Your task to perform on an android device: toggle notifications settings in the gmail app Image 0: 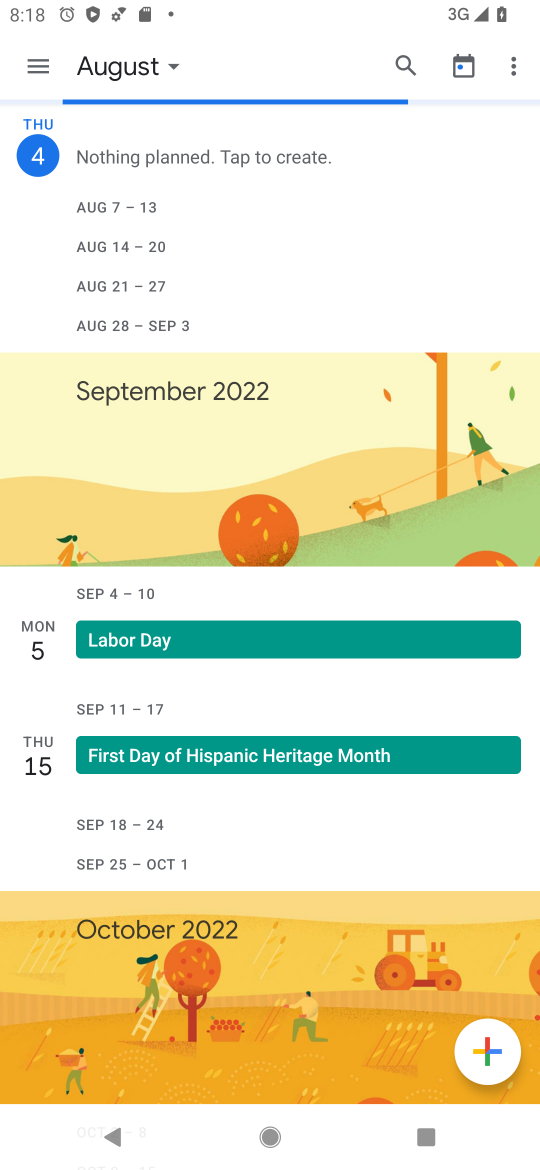
Step 0: press back button
Your task to perform on an android device: toggle notifications settings in the gmail app Image 1: 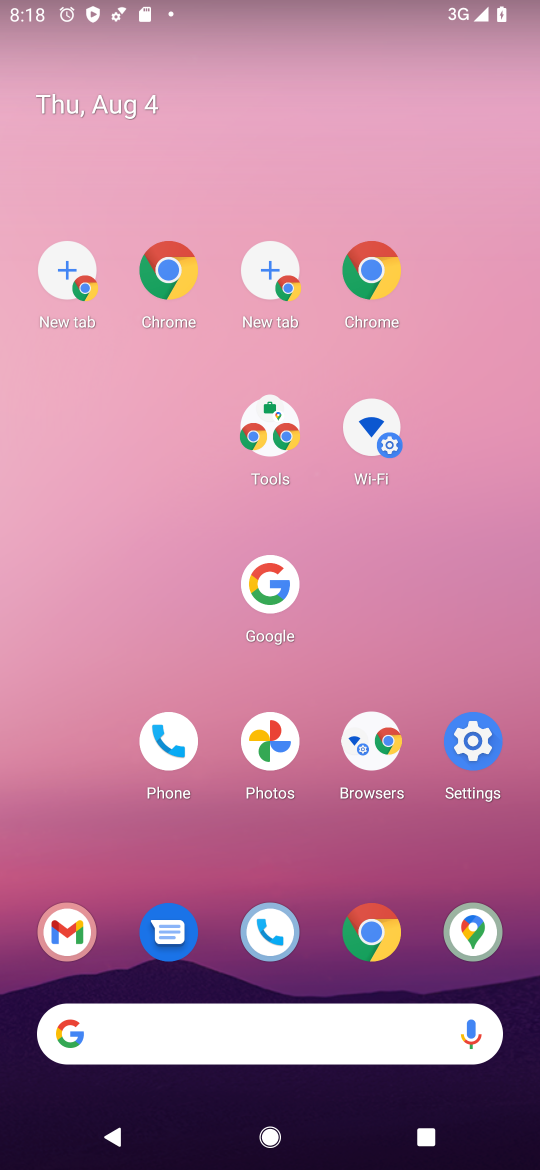
Step 1: press home button
Your task to perform on an android device: toggle notifications settings in the gmail app Image 2: 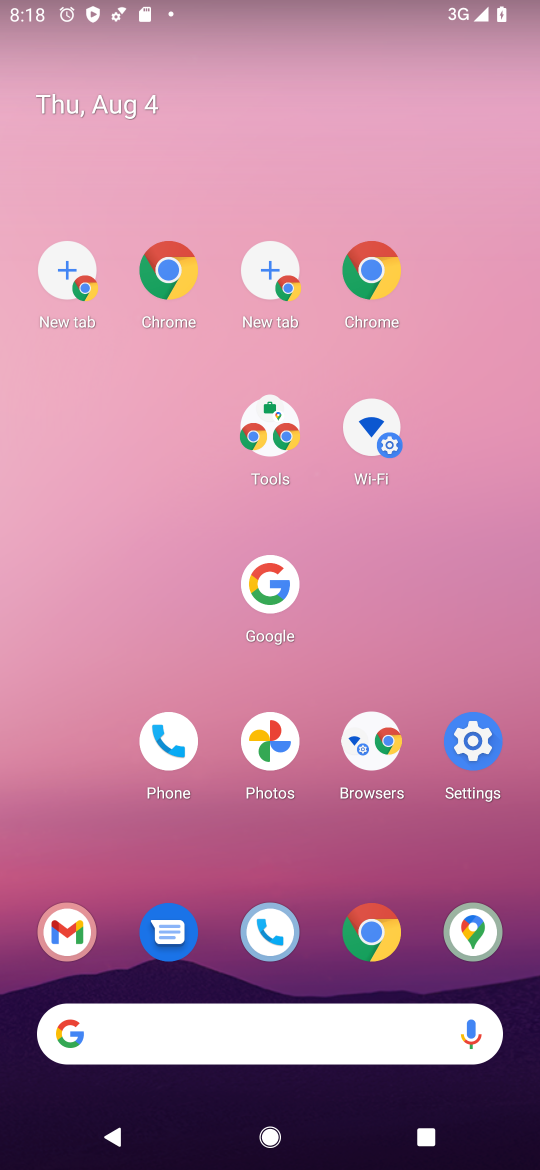
Step 2: drag from (149, 409) to (241, 221)
Your task to perform on an android device: toggle notifications settings in the gmail app Image 3: 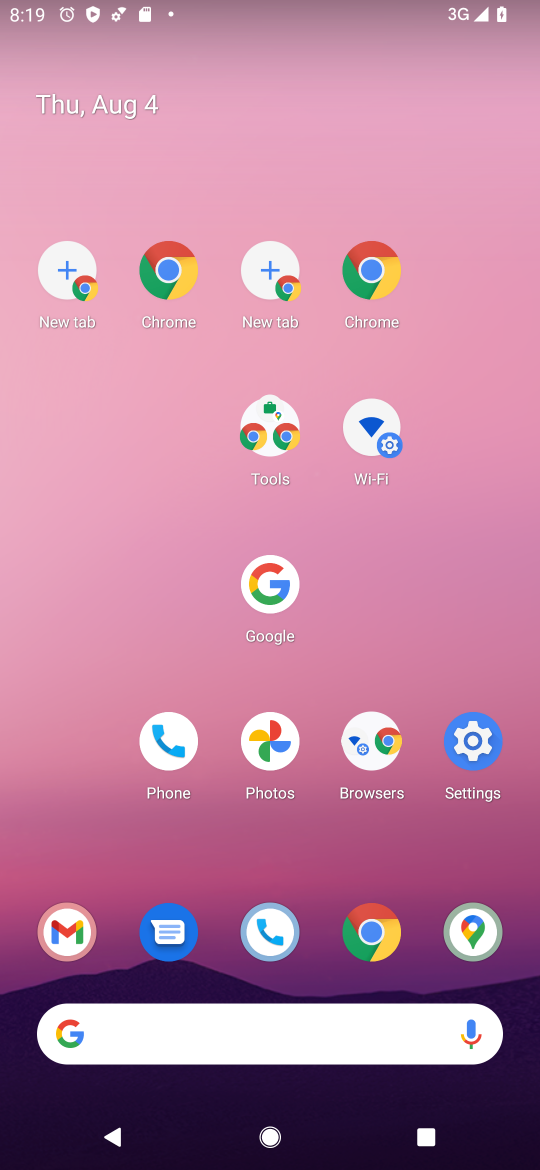
Step 3: click (71, 918)
Your task to perform on an android device: toggle notifications settings in the gmail app Image 4: 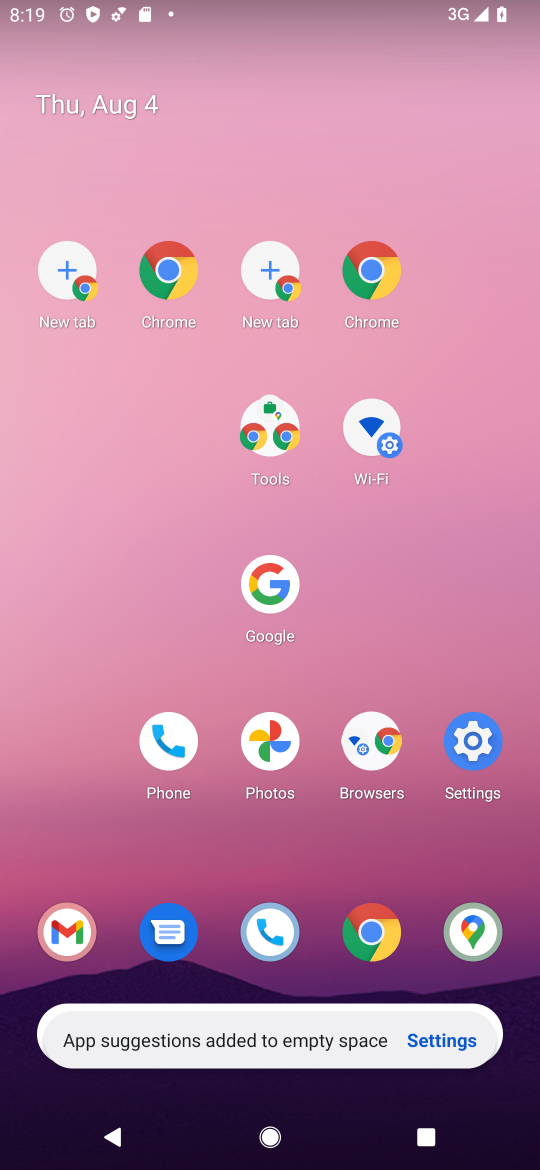
Step 4: click (83, 921)
Your task to perform on an android device: toggle notifications settings in the gmail app Image 5: 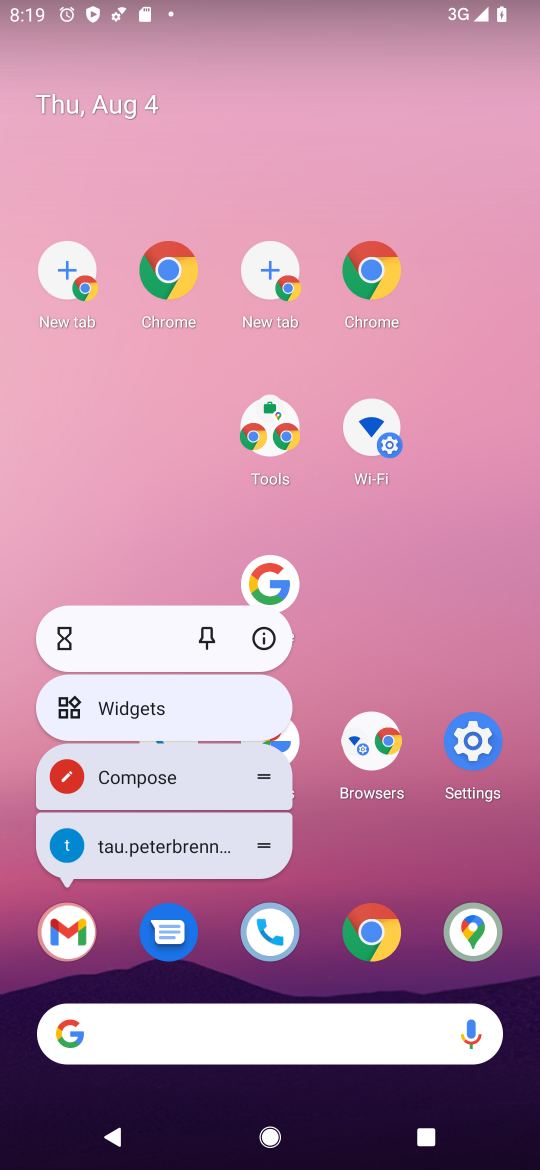
Step 5: click (84, 921)
Your task to perform on an android device: toggle notifications settings in the gmail app Image 6: 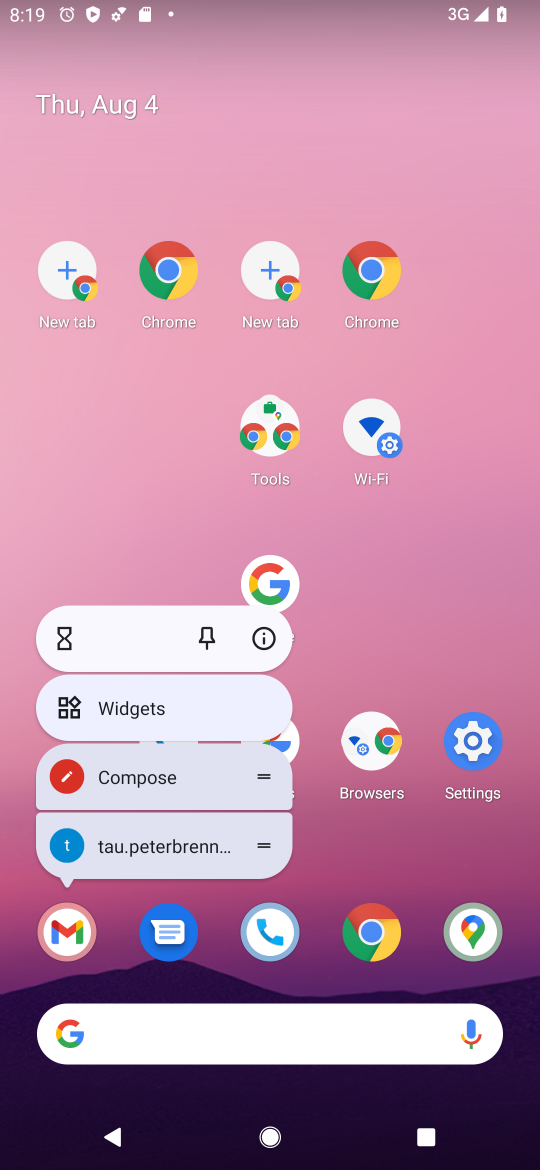
Step 6: click (44, 939)
Your task to perform on an android device: toggle notifications settings in the gmail app Image 7: 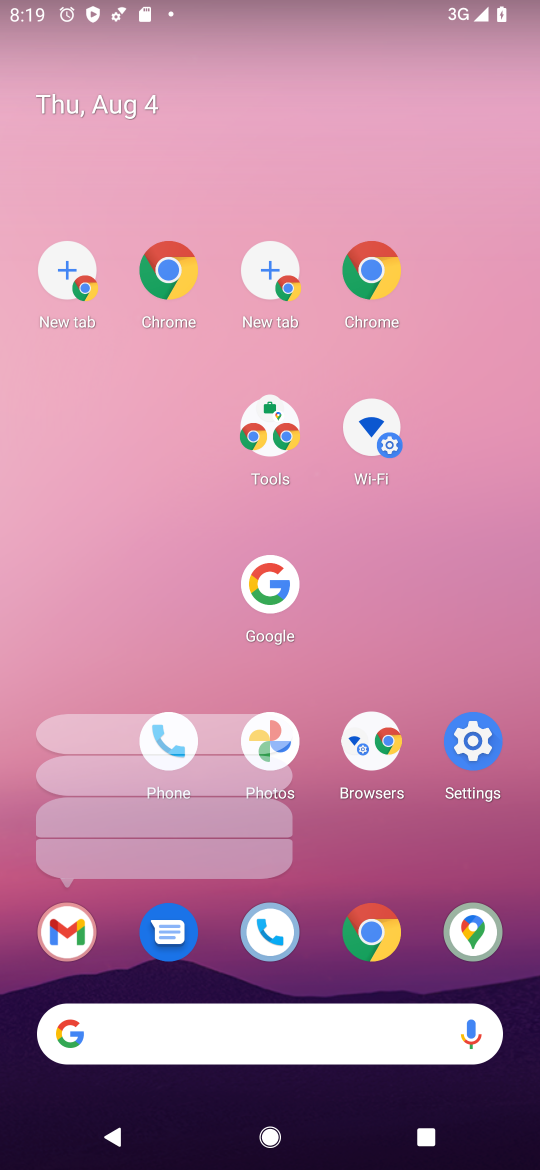
Step 7: click (44, 939)
Your task to perform on an android device: toggle notifications settings in the gmail app Image 8: 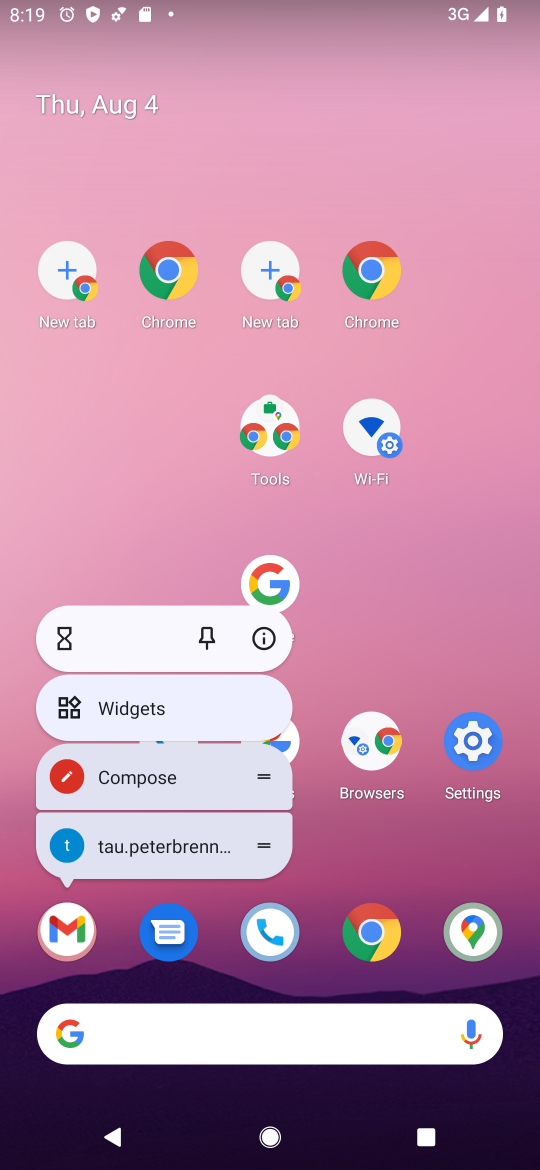
Step 8: click (44, 936)
Your task to perform on an android device: toggle notifications settings in the gmail app Image 9: 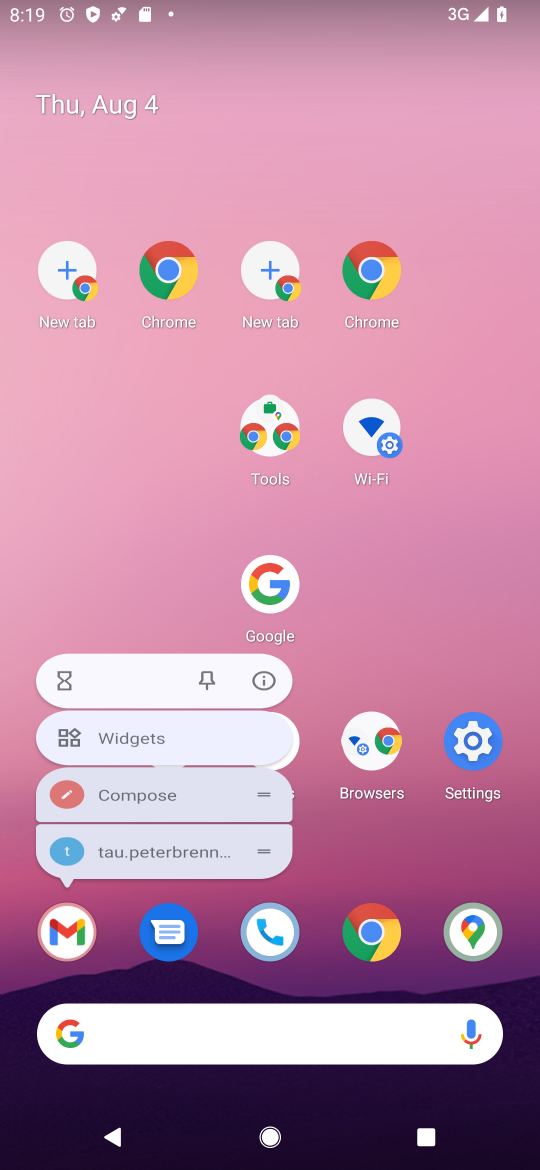
Step 9: click (34, 935)
Your task to perform on an android device: toggle notifications settings in the gmail app Image 10: 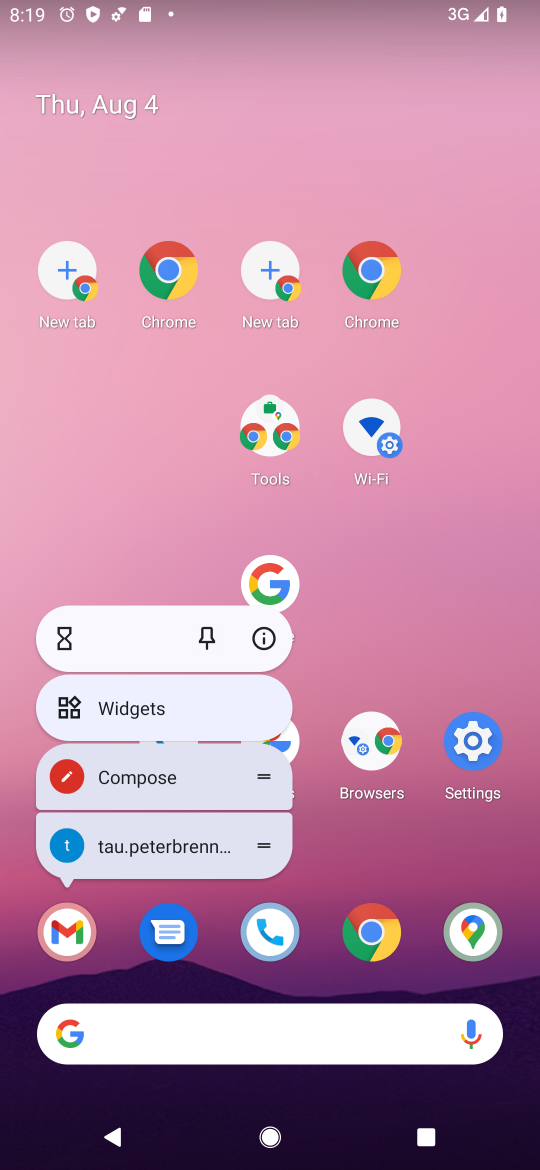
Step 10: click (379, 614)
Your task to perform on an android device: toggle notifications settings in the gmail app Image 11: 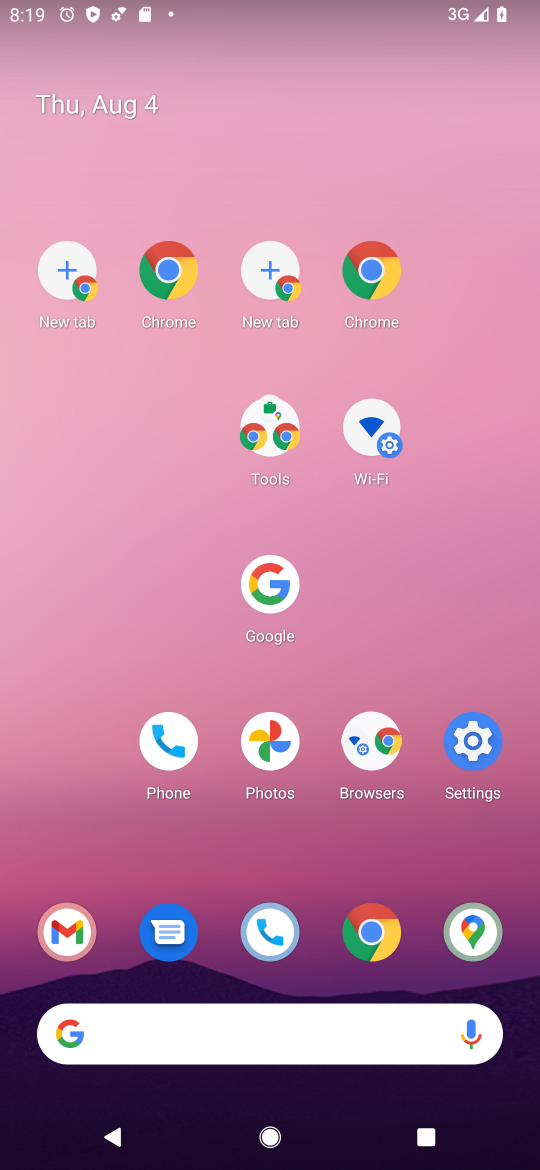
Step 11: click (267, 583)
Your task to perform on an android device: toggle notifications settings in the gmail app Image 12: 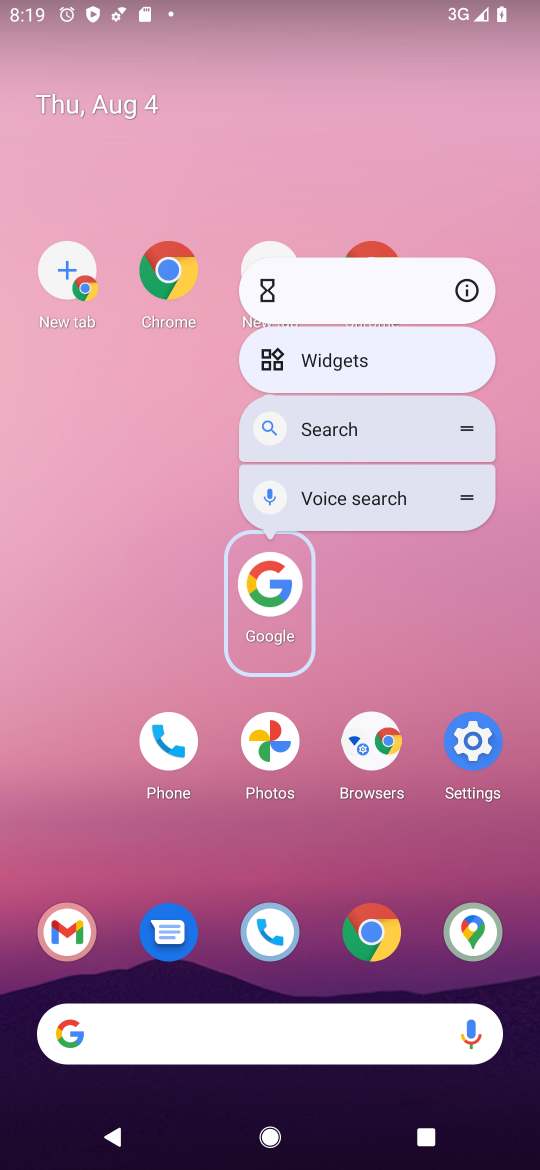
Step 12: drag from (293, 820) to (219, 91)
Your task to perform on an android device: toggle notifications settings in the gmail app Image 13: 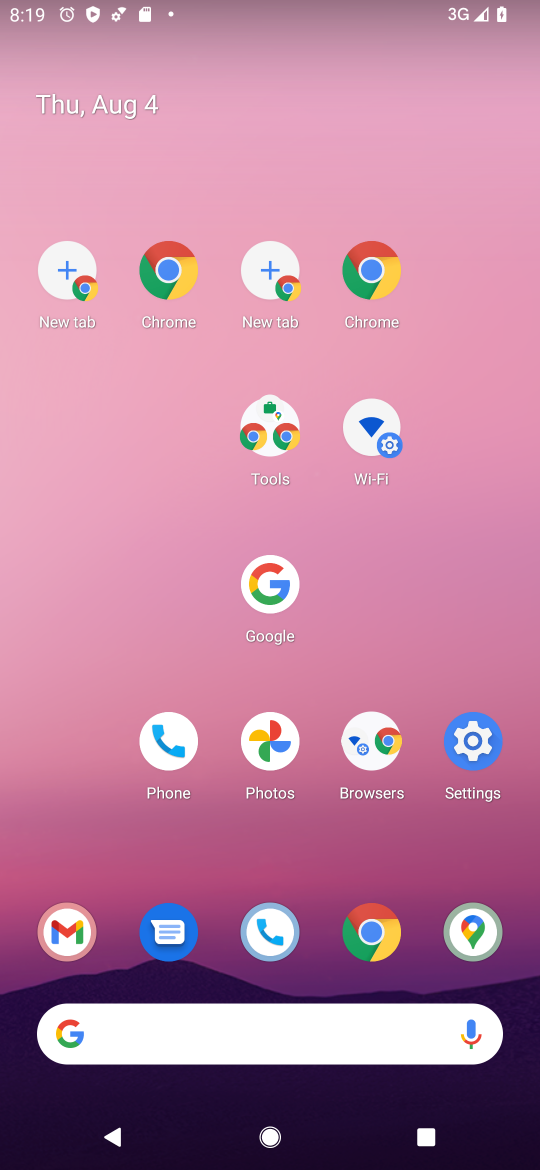
Step 13: drag from (286, 446) to (267, 75)
Your task to perform on an android device: toggle notifications settings in the gmail app Image 14: 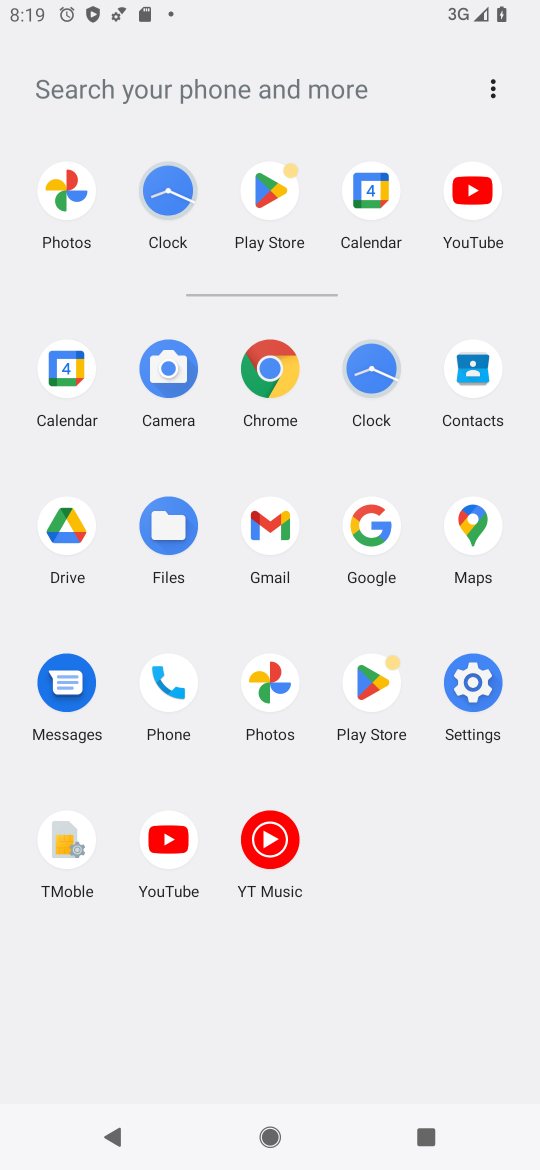
Step 14: click (260, 651)
Your task to perform on an android device: toggle notifications settings in the gmail app Image 15: 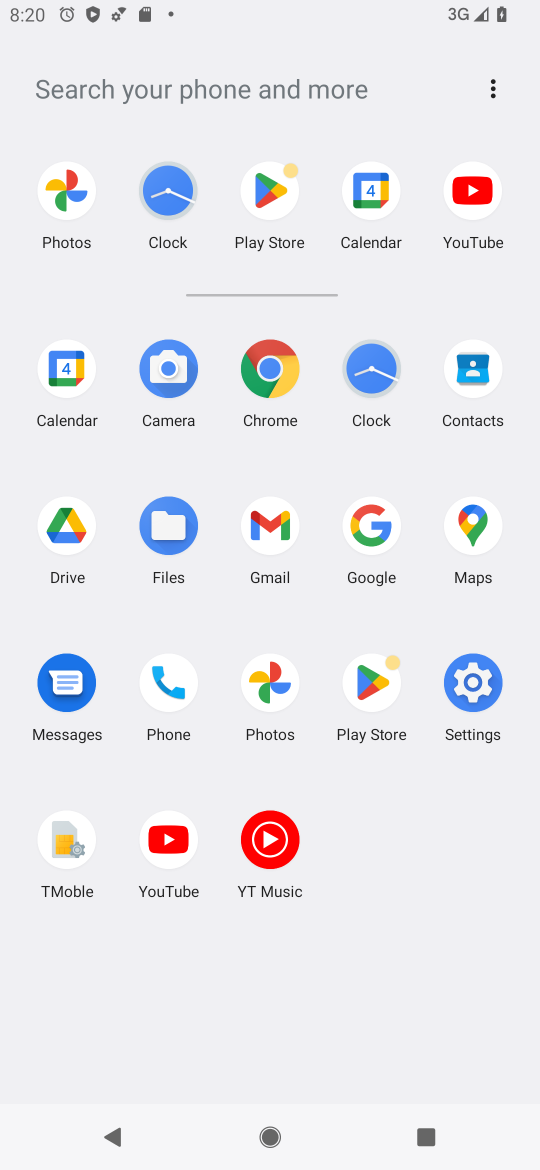
Step 15: click (268, 530)
Your task to perform on an android device: toggle notifications settings in the gmail app Image 16: 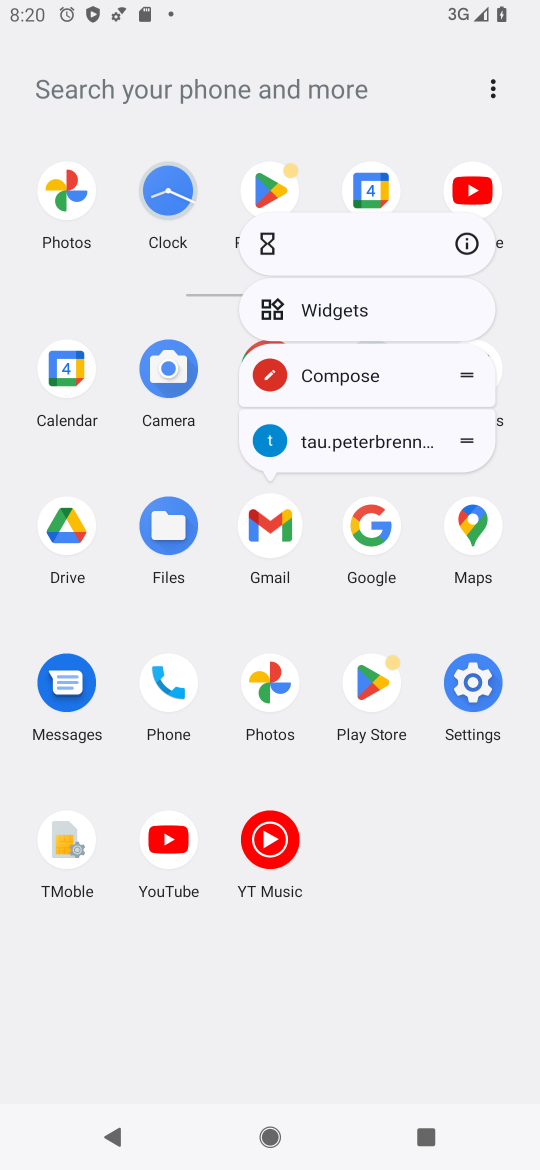
Step 16: click (268, 530)
Your task to perform on an android device: toggle notifications settings in the gmail app Image 17: 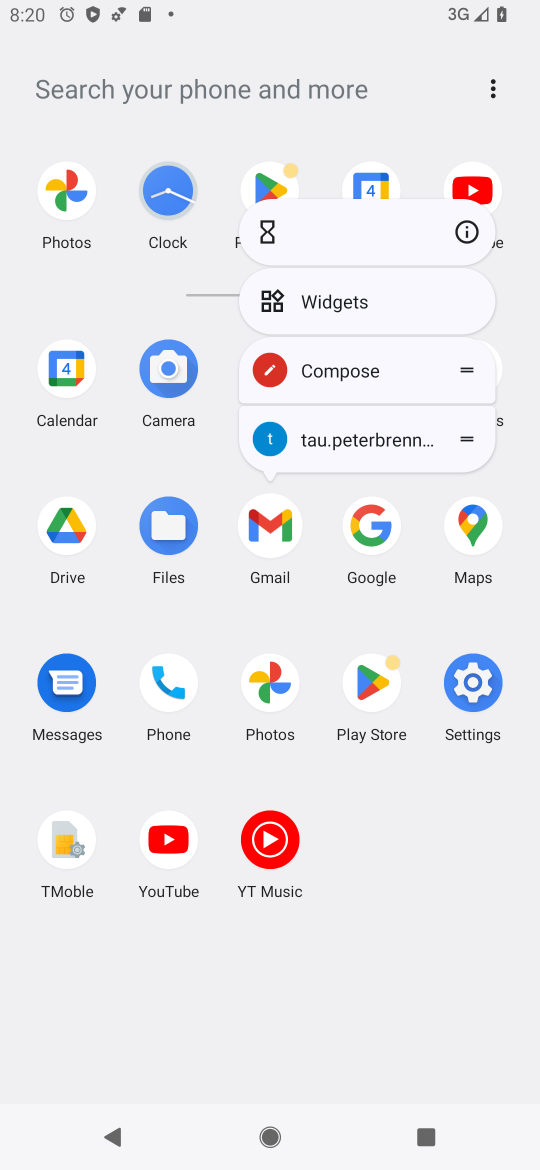
Step 17: click (268, 512)
Your task to perform on an android device: toggle notifications settings in the gmail app Image 18: 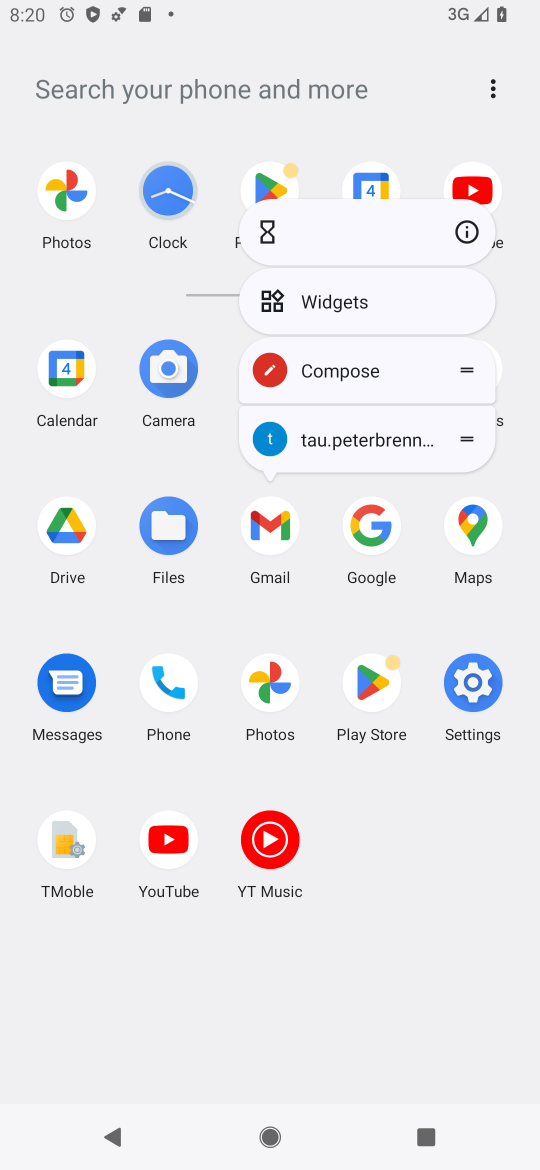
Step 18: click (268, 512)
Your task to perform on an android device: toggle notifications settings in the gmail app Image 19: 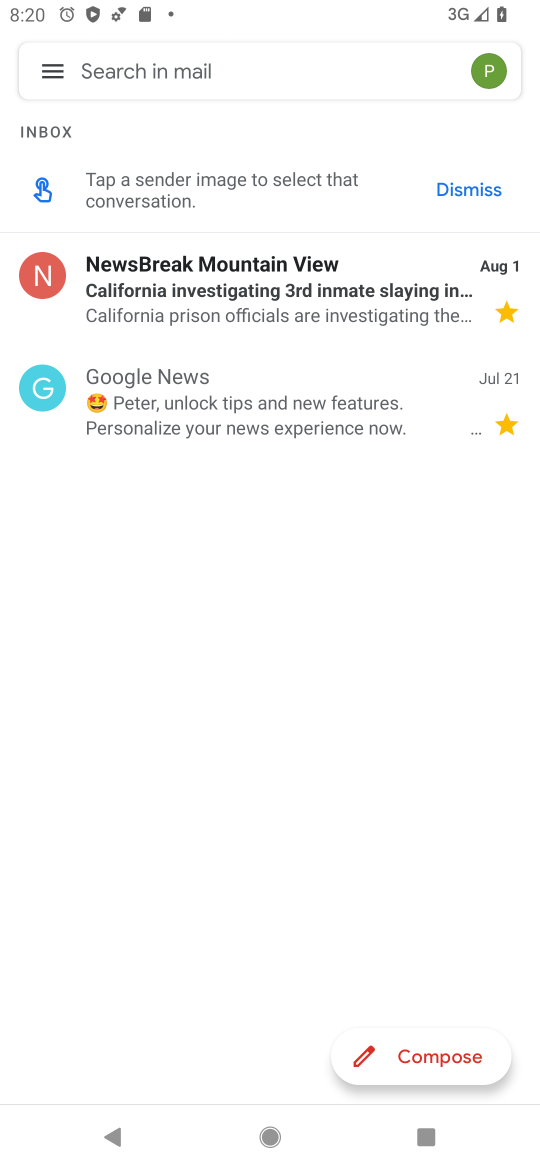
Step 19: drag from (43, 74) to (78, 400)
Your task to perform on an android device: toggle notifications settings in the gmail app Image 20: 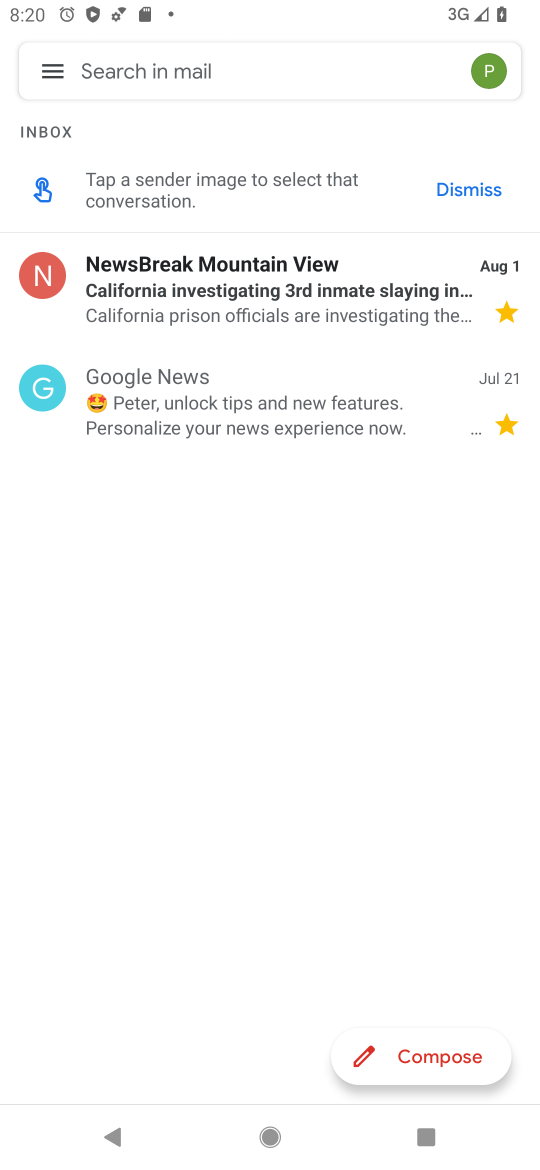
Step 20: drag from (62, 70) to (68, 629)
Your task to perform on an android device: toggle notifications settings in the gmail app Image 21: 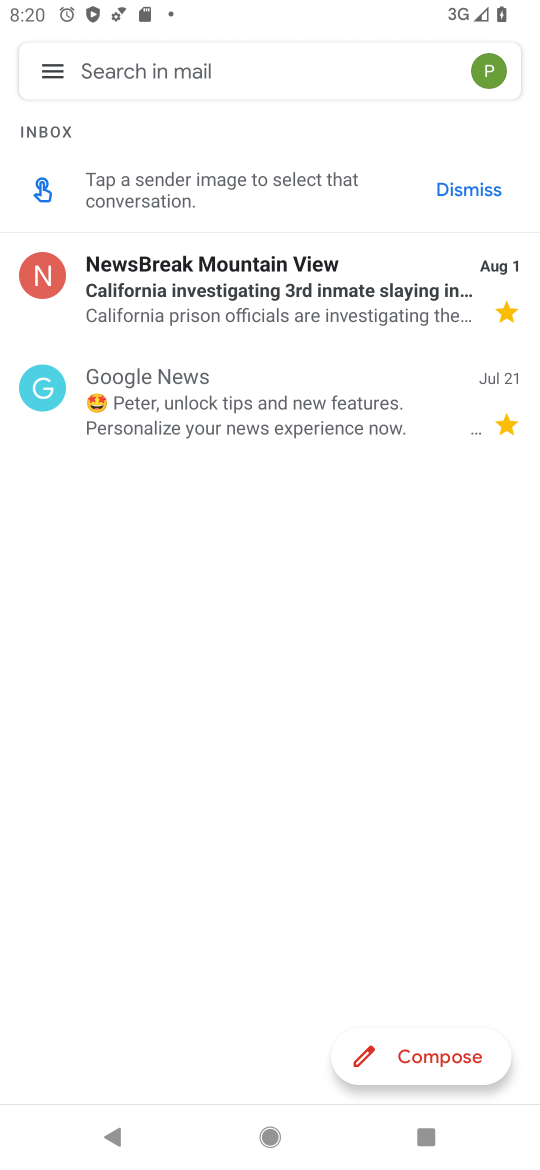
Step 21: click (40, 63)
Your task to perform on an android device: toggle notifications settings in the gmail app Image 22: 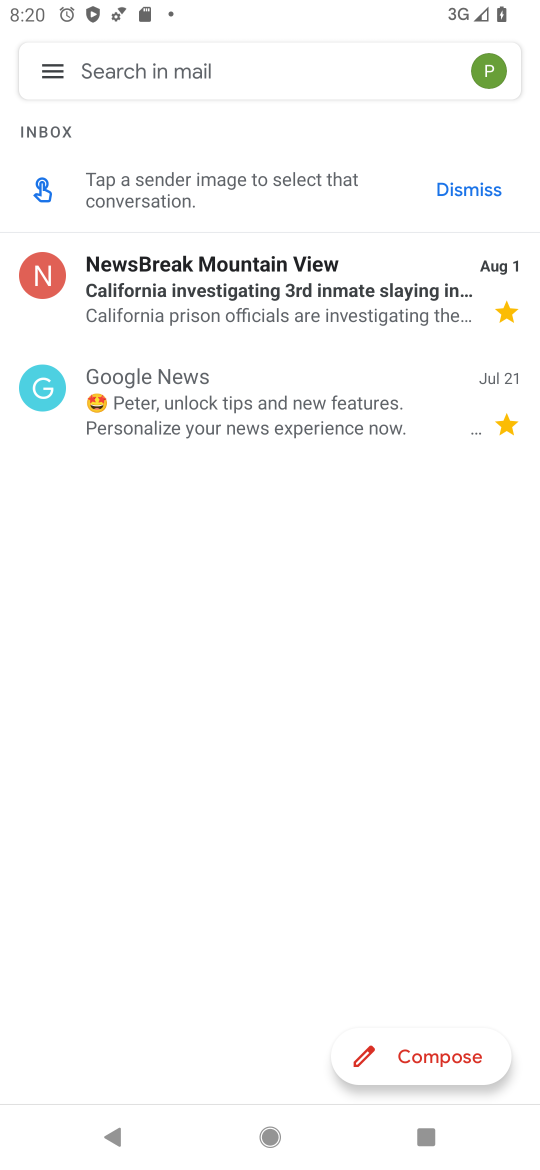
Step 22: drag from (40, 63) to (534, 858)
Your task to perform on an android device: toggle notifications settings in the gmail app Image 23: 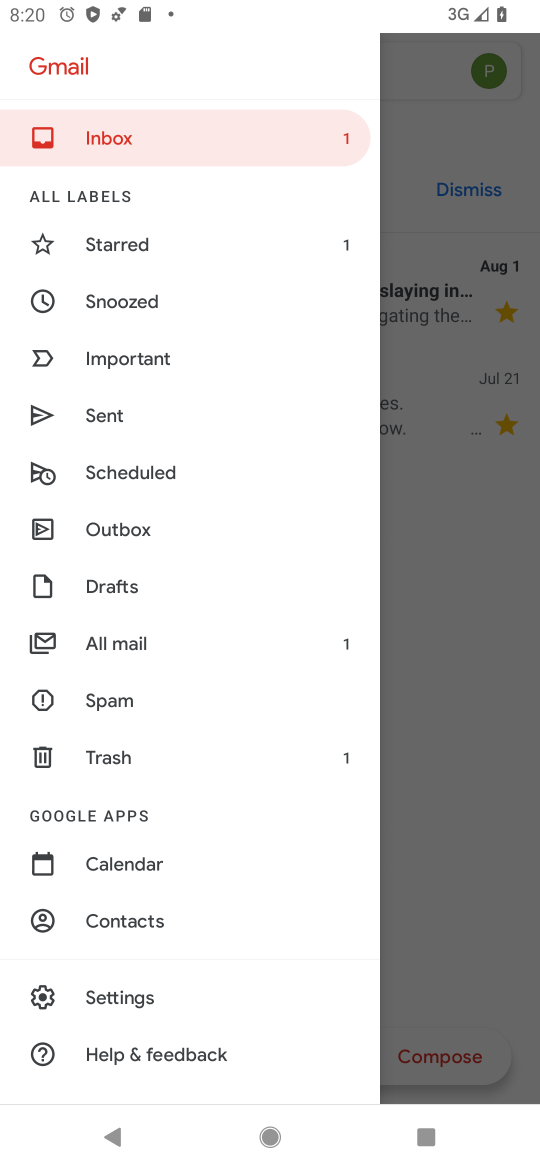
Step 23: drag from (189, 842) to (143, 262)
Your task to perform on an android device: toggle notifications settings in the gmail app Image 24: 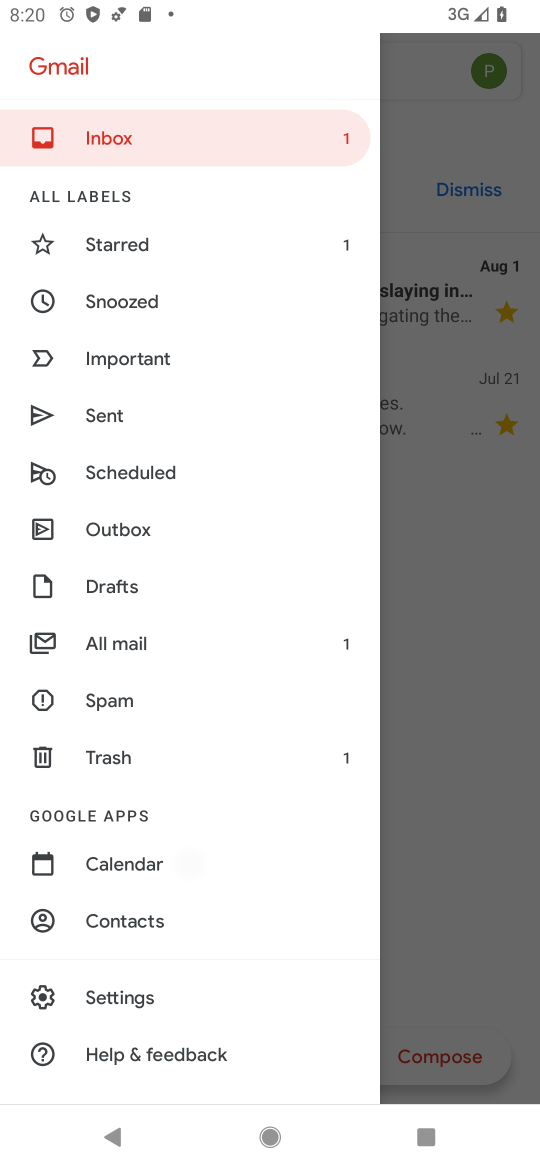
Step 24: drag from (162, 800) to (149, 334)
Your task to perform on an android device: toggle notifications settings in the gmail app Image 25: 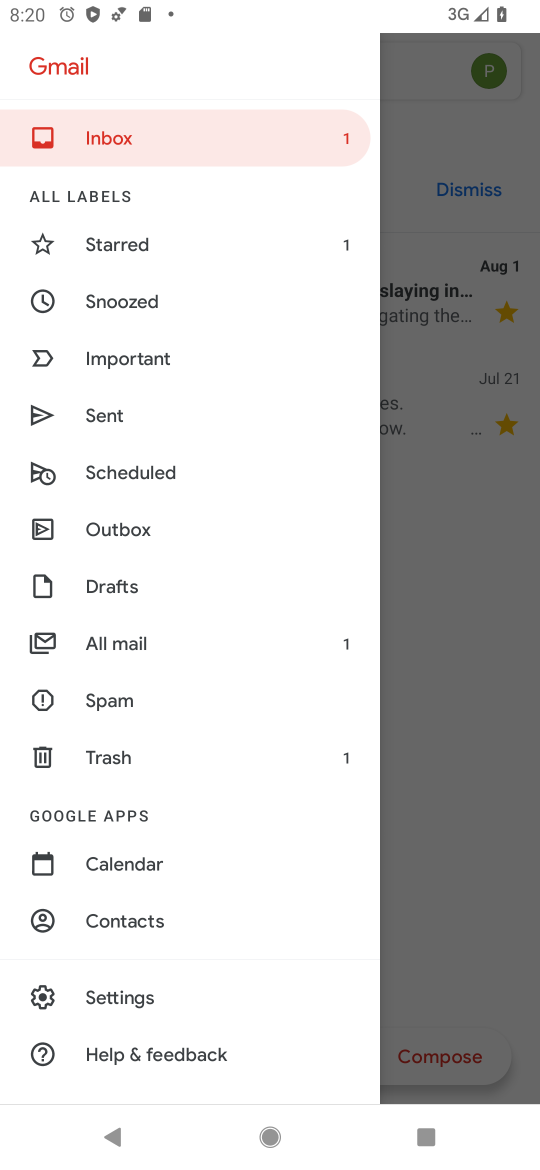
Step 25: click (108, 990)
Your task to perform on an android device: toggle notifications settings in the gmail app Image 26: 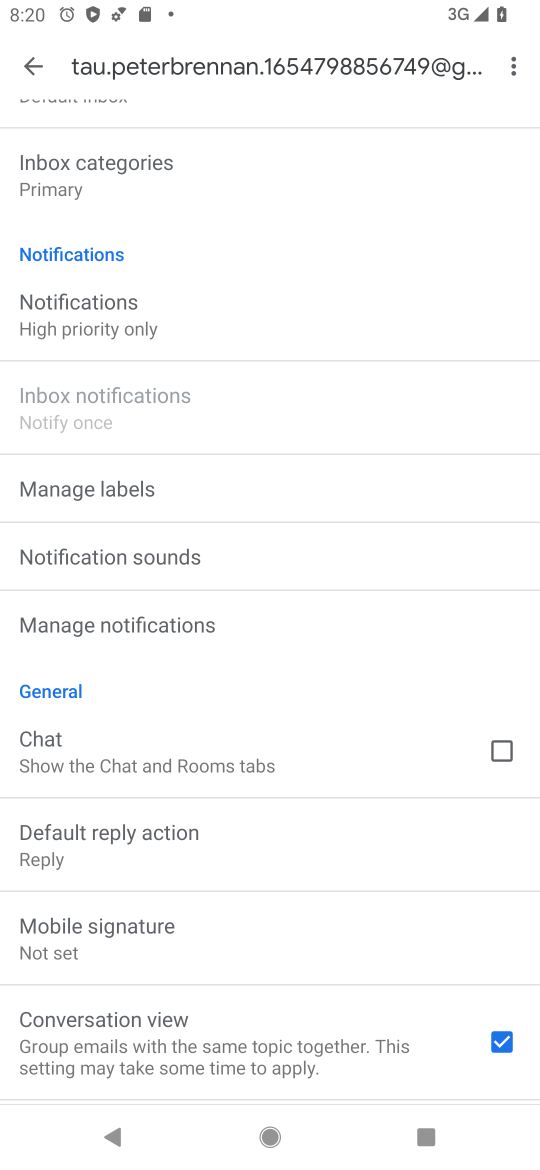
Step 26: click (79, 310)
Your task to perform on an android device: toggle notifications settings in the gmail app Image 27: 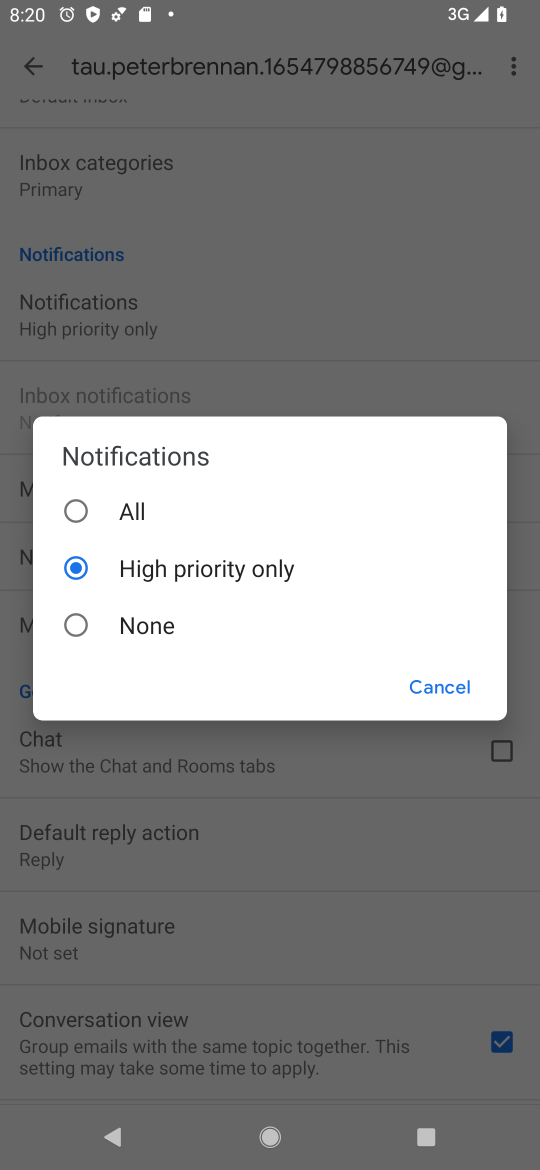
Step 27: click (89, 321)
Your task to perform on an android device: toggle notifications settings in the gmail app Image 28: 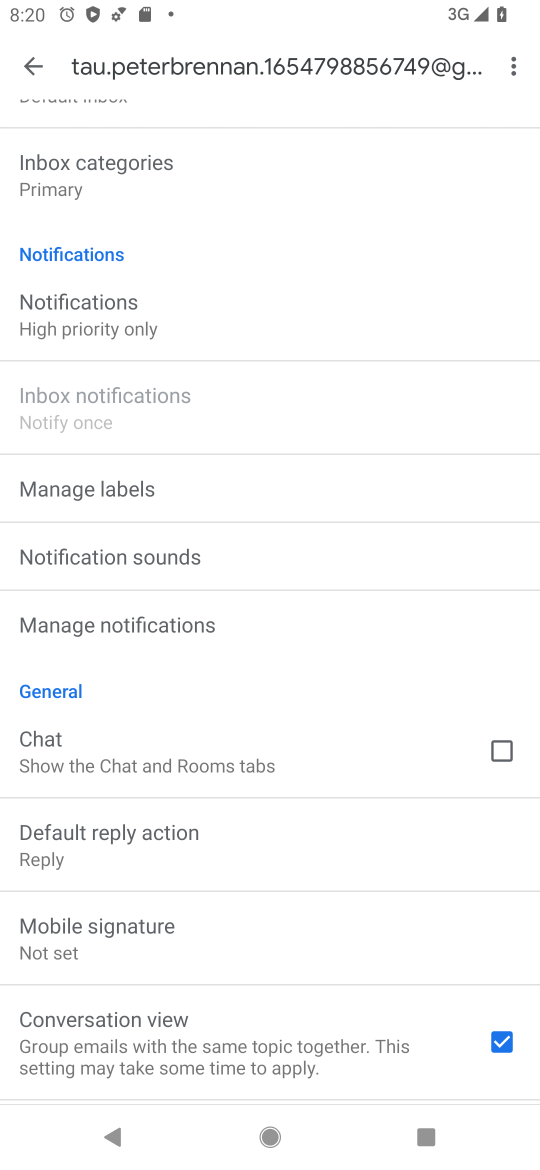
Step 28: click (66, 511)
Your task to perform on an android device: toggle notifications settings in the gmail app Image 29: 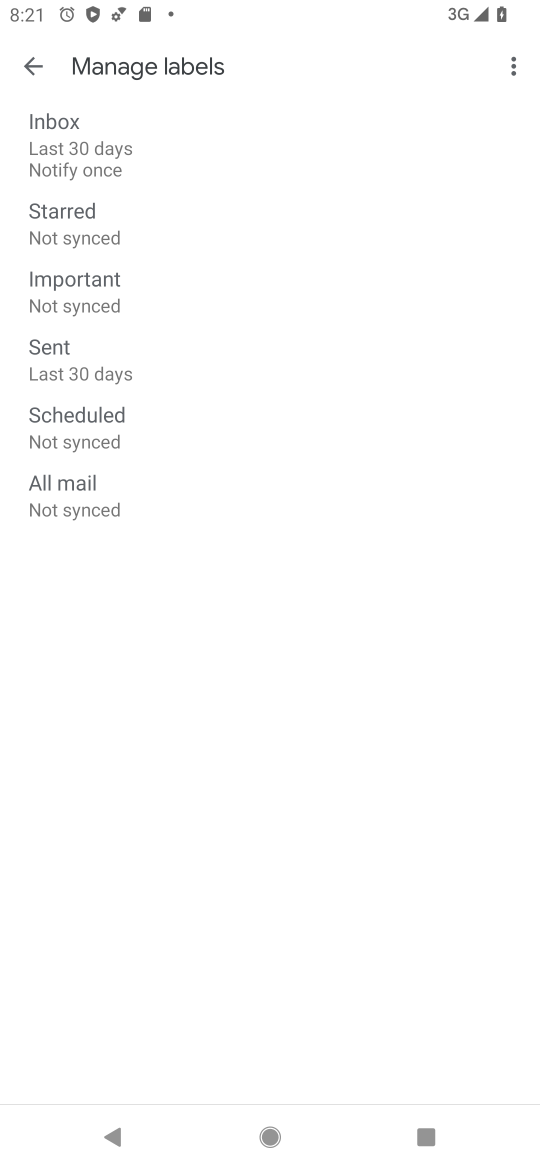
Step 29: task complete